Your task to perform on an android device: Open the web browser Image 0: 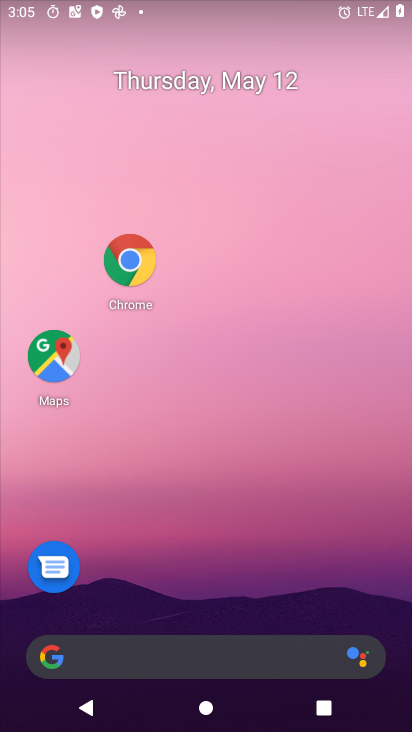
Step 0: click (130, 257)
Your task to perform on an android device: Open the web browser Image 1: 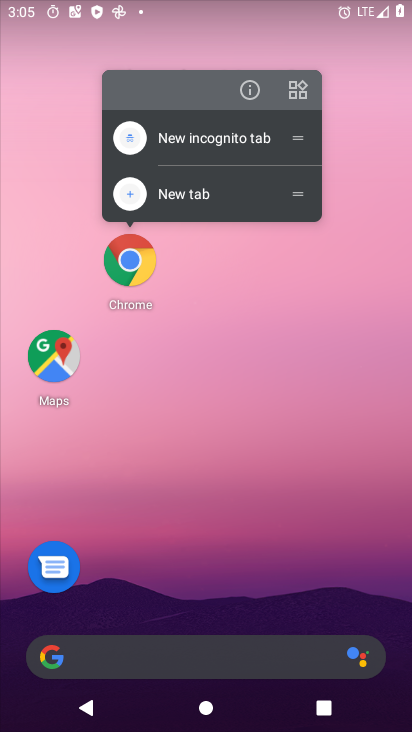
Step 1: drag from (235, 639) to (304, 206)
Your task to perform on an android device: Open the web browser Image 2: 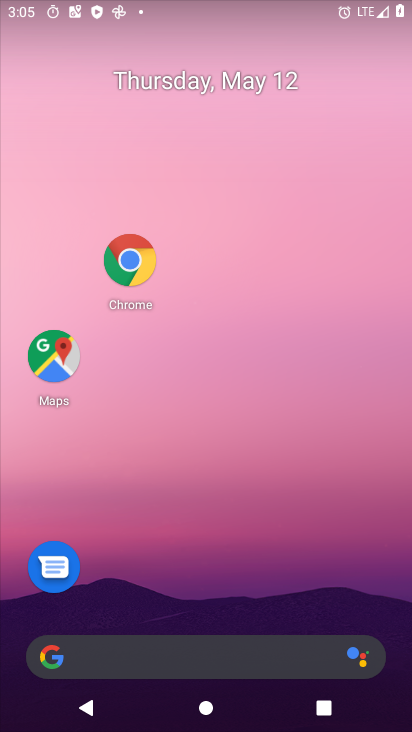
Step 2: drag from (281, 622) to (301, 203)
Your task to perform on an android device: Open the web browser Image 3: 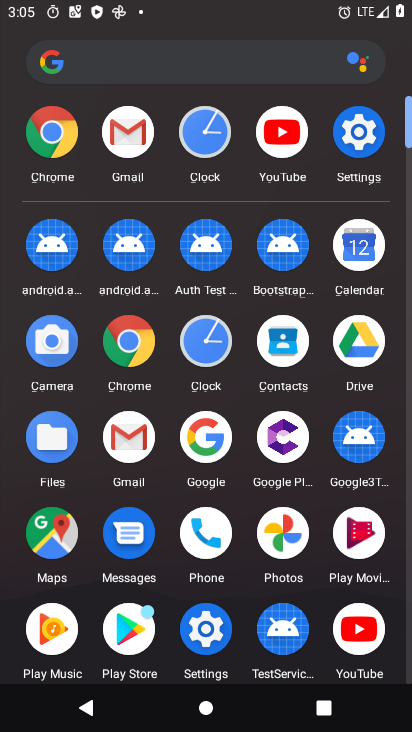
Step 3: click (212, 448)
Your task to perform on an android device: Open the web browser Image 4: 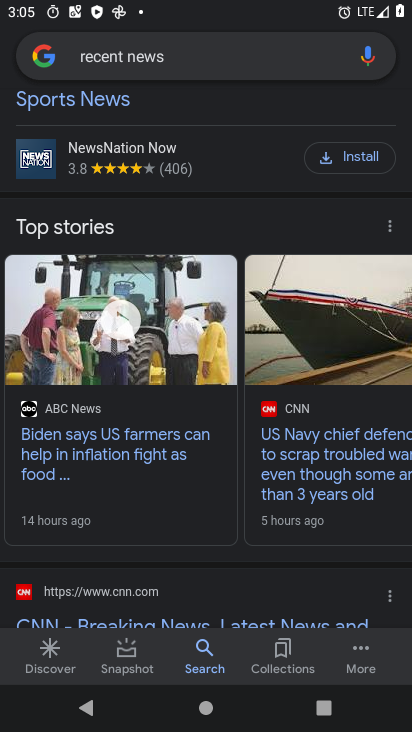
Step 4: click (179, 54)
Your task to perform on an android device: Open the web browser Image 5: 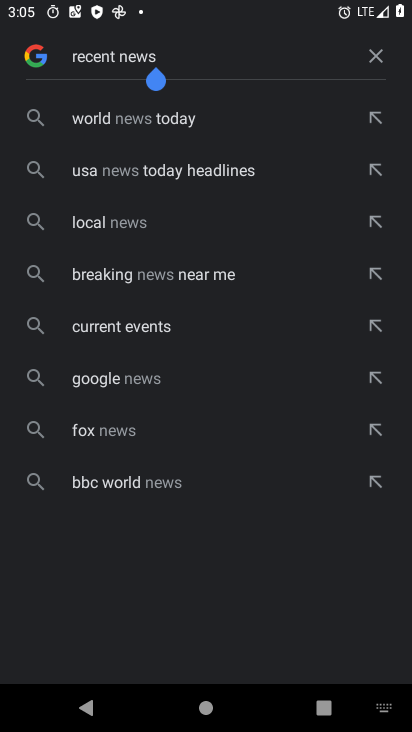
Step 5: click (372, 62)
Your task to perform on an android device: Open the web browser Image 6: 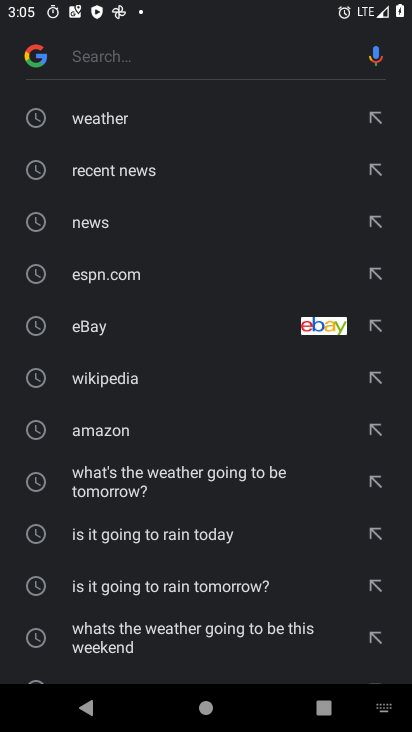
Step 6: task complete